Your task to perform on an android device: Search for pizza restaurants on Maps Image 0: 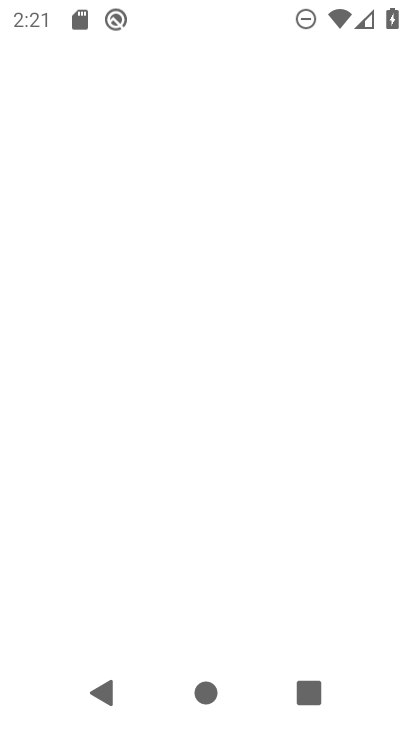
Step 0: press home button
Your task to perform on an android device: Search for pizza restaurants on Maps Image 1: 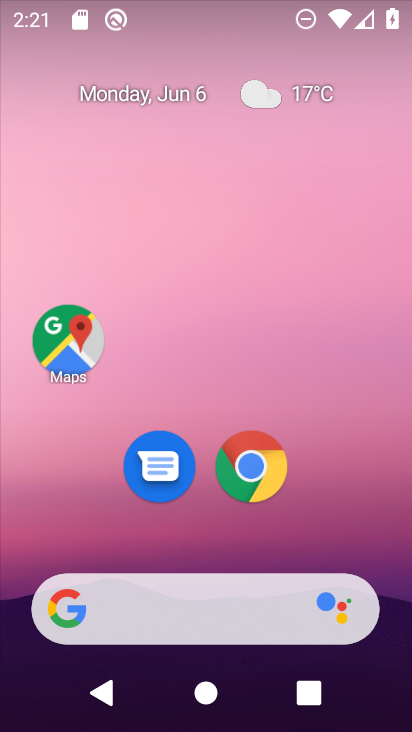
Step 1: drag from (211, 517) to (205, 136)
Your task to perform on an android device: Search for pizza restaurants on Maps Image 2: 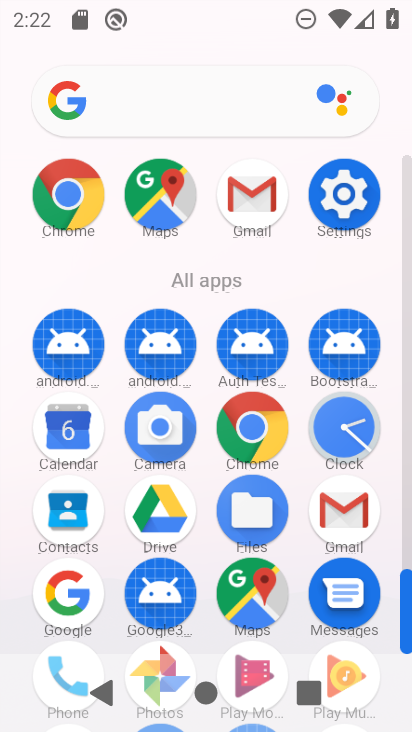
Step 2: drag from (214, 638) to (230, 333)
Your task to perform on an android device: Search for pizza restaurants on Maps Image 3: 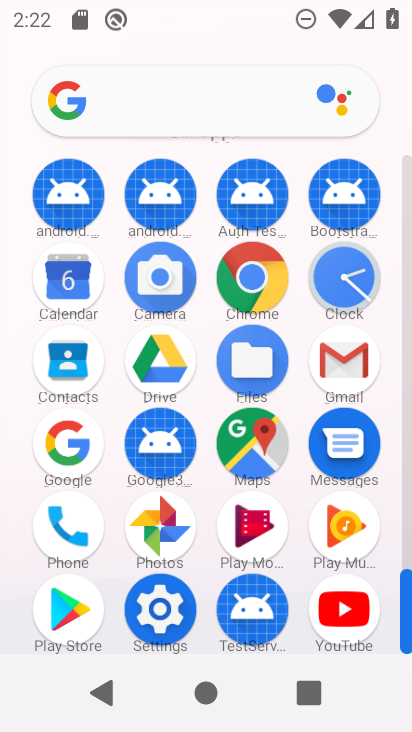
Step 3: click (245, 446)
Your task to perform on an android device: Search for pizza restaurants on Maps Image 4: 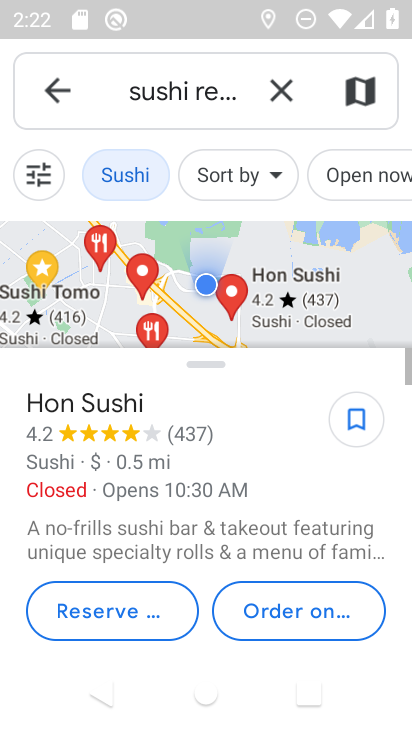
Step 4: click (273, 93)
Your task to perform on an android device: Search for pizza restaurants on Maps Image 5: 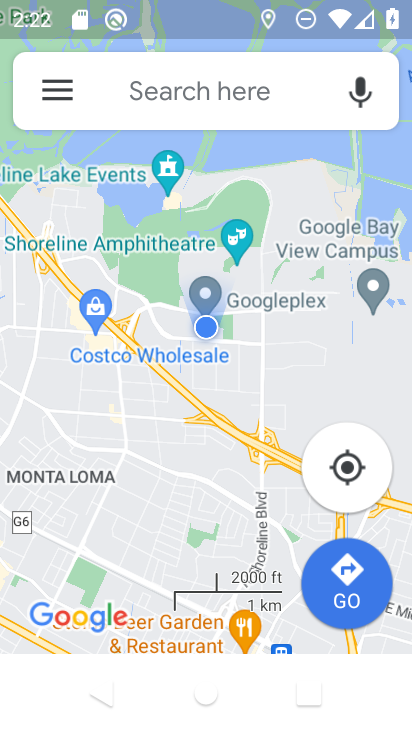
Step 5: click (151, 101)
Your task to perform on an android device: Search for pizza restaurants on Maps Image 6: 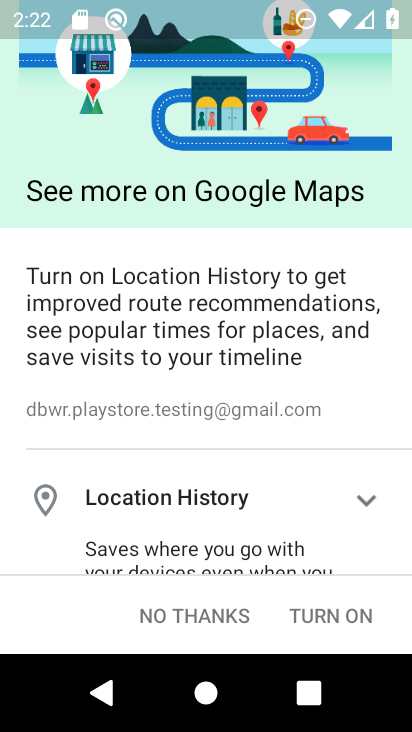
Step 6: click (173, 620)
Your task to perform on an android device: Search for pizza restaurants on Maps Image 7: 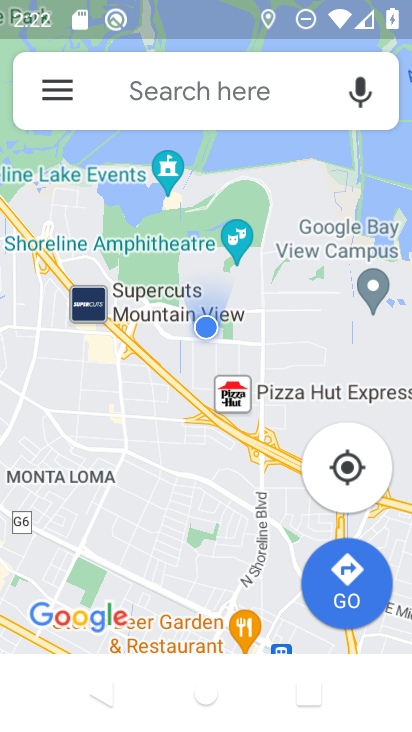
Step 7: click (192, 86)
Your task to perform on an android device: Search for pizza restaurants on Maps Image 8: 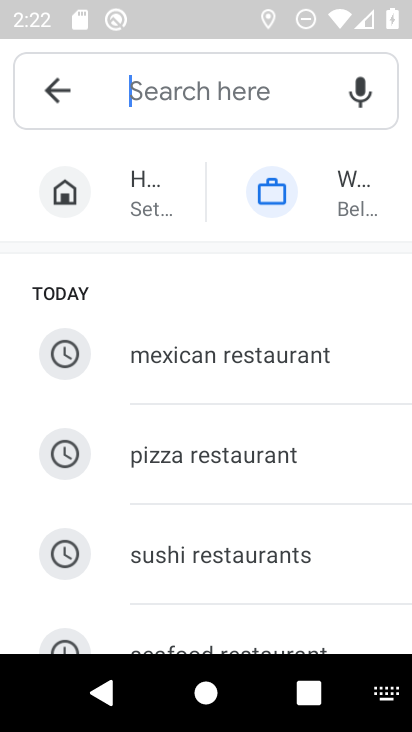
Step 8: click (203, 453)
Your task to perform on an android device: Search for pizza restaurants on Maps Image 9: 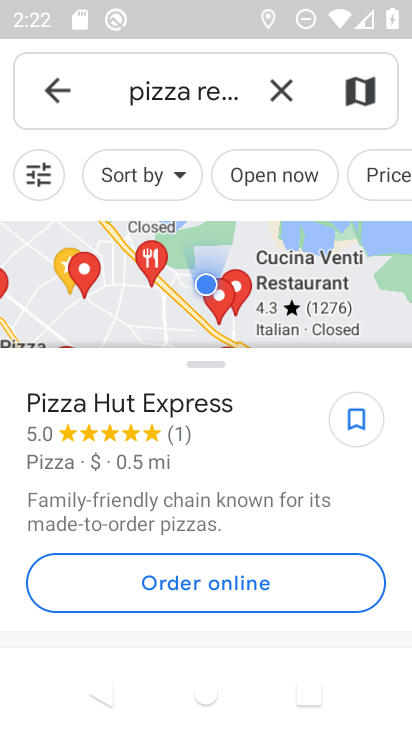
Step 9: task complete